Your task to perform on an android device: Open Amazon Image 0: 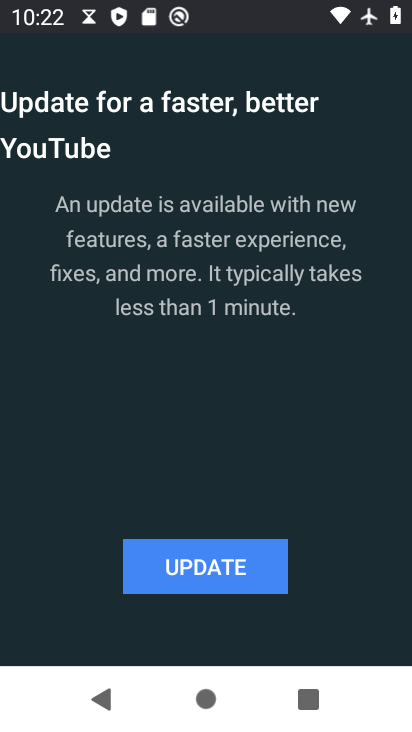
Step 0: press back button
Your task to perform on an android device: Open Amazon Image 1: 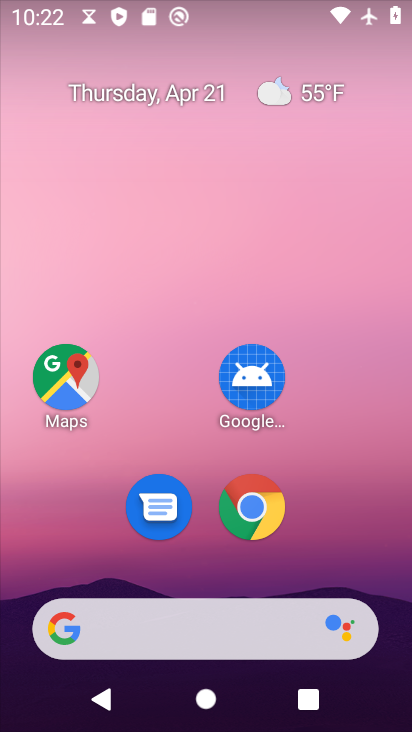
Step 1: drag from (335, 478) to (321, 147)
Your task to perform on an android device: Open Amazon Image 2: 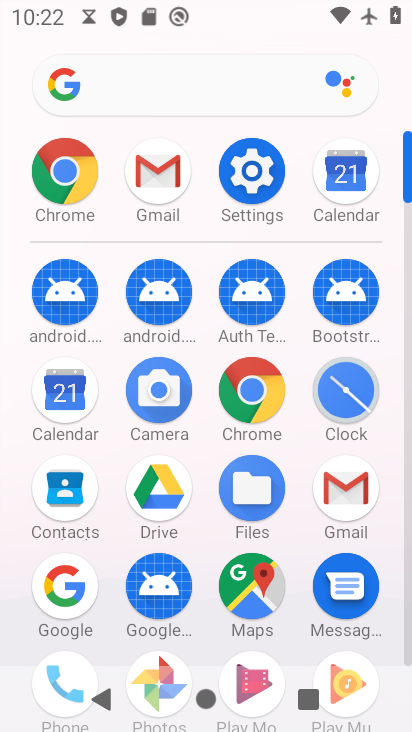
Step 2: click (64, 167)
Your task to perform on an android device: Open Amazon Image 3: 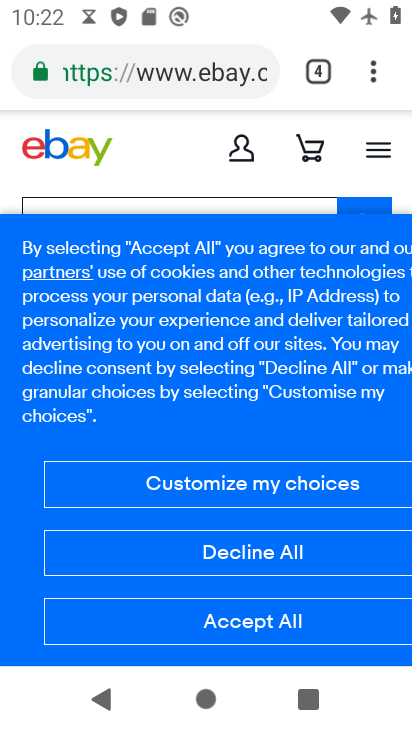
Step 3: click (362, 67)
Your task to perform on an android device: Open Amazon Image 4: 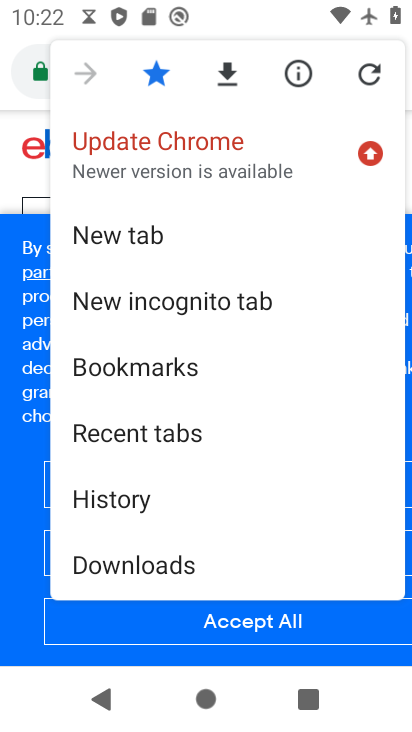
Step 4: click (177, 236)
Your task to perform on an android device: Open Amazon Image 5: 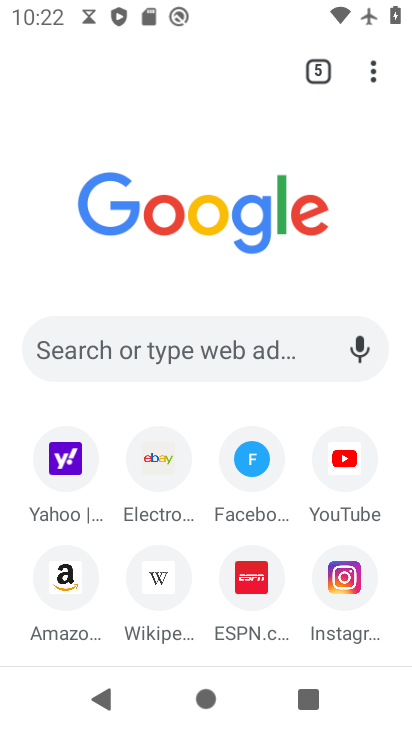
Step 5: click (65, 569)
Your task to perform on an android device: Open Amazon Image 6: 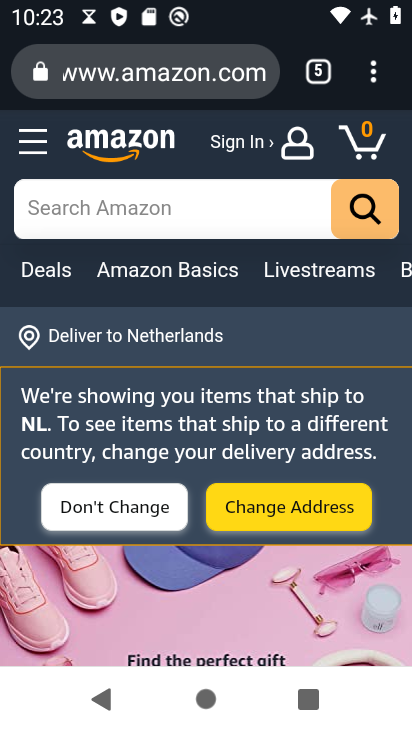
Step 6: task complete